Your task to perform on an android device: turn on notifications settings in the gmail app Image 0: 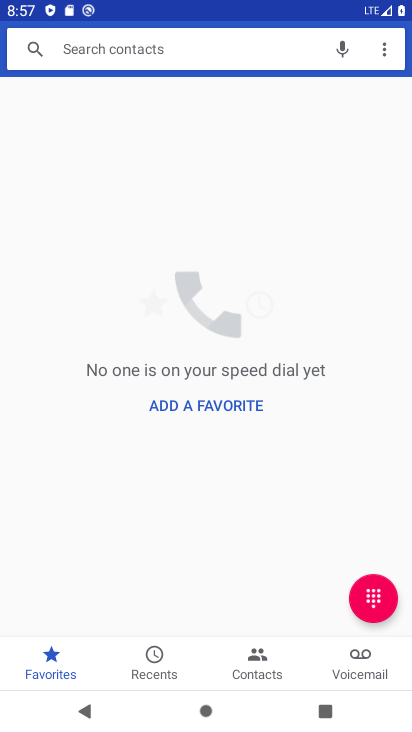
Step 0: press home button
Your task to perform on an android device: turn on notifications settings in the gmail app Image 1: 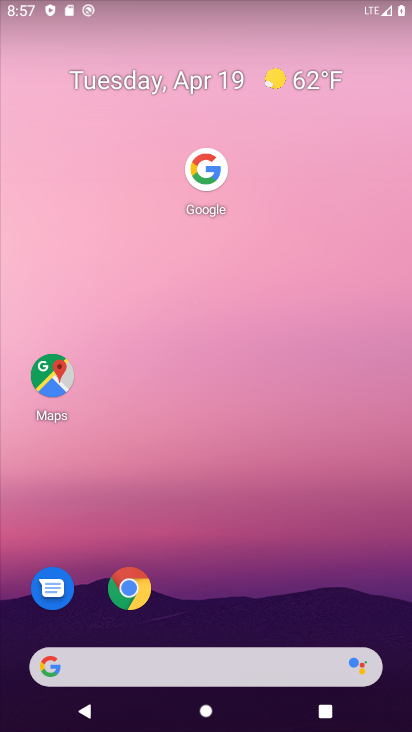
Step 1: drag from (205, 609) to (174, 2)
Your task to perform on an android device: turn on notifications settings in the gmail app Image 2: 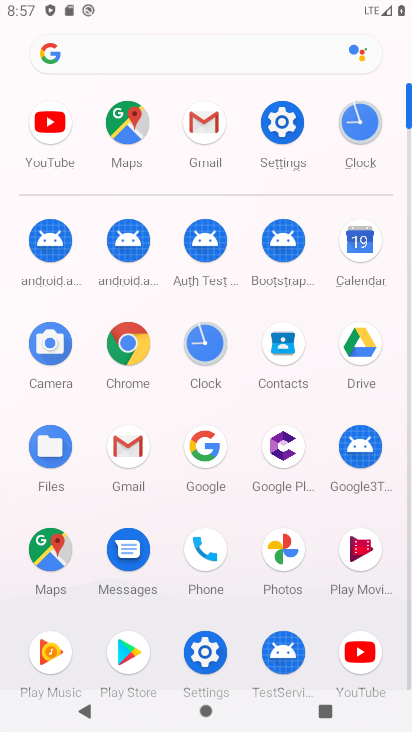
Step 2: click (207, 125)
Your task to perform on an android device: turn on notifications settings in the gmail app Image 3: 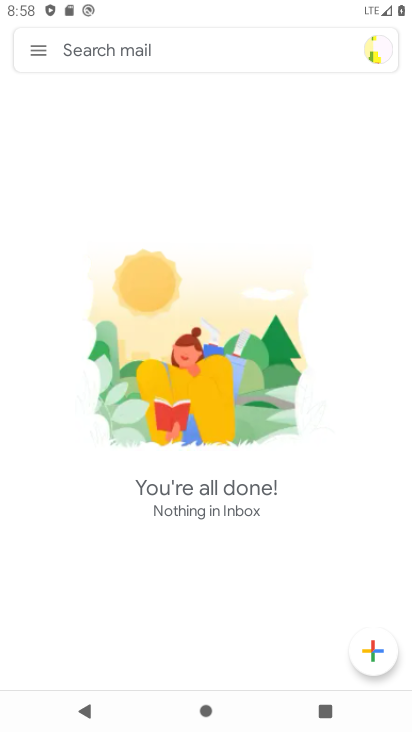
Step 3: click (38, 51)
Your task to perform on an android device: turn on notifications settings in the gmail app Image 4: 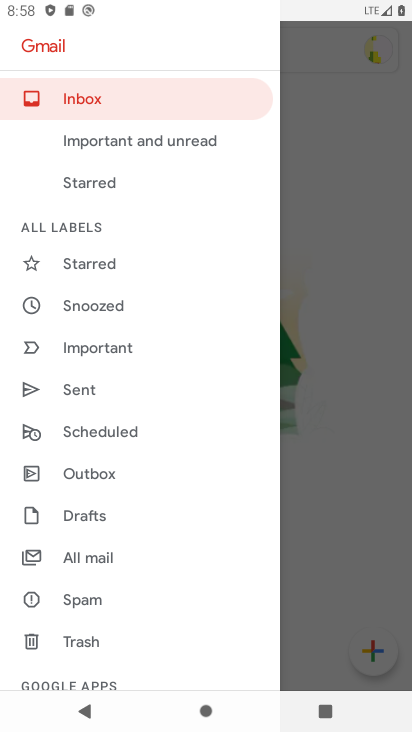
Step 4: drag from (144, 639) to (122, 181)
Your task to perform on an android device: turn on notifications settings in the gmail app Image 5: 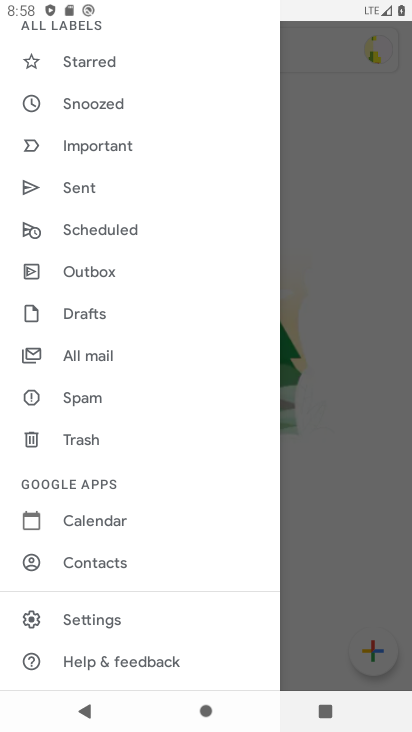
Step 5: click (94, 626)
Your task to perform on an android device: turn on notifications settings in the gmail app Image 6: 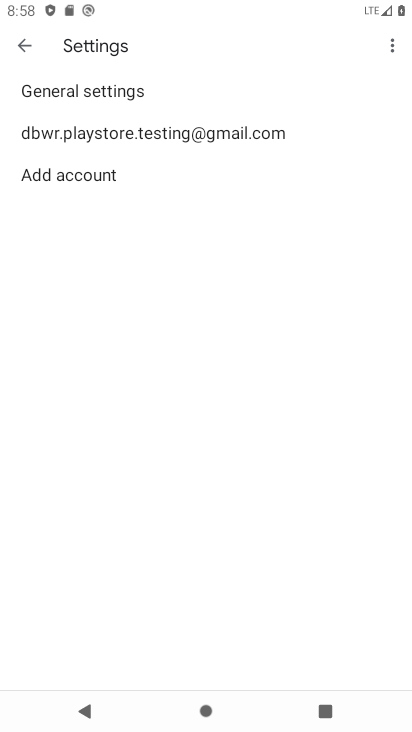
Step 6: click (76, 85)
Your task to perform on an android device: turn on notifications settings in the gmail app Image 7: 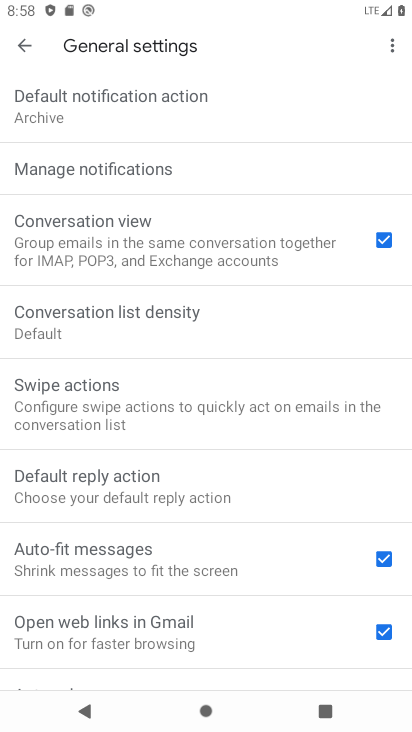
Step 7: click (118, 164)
Your task to perform on an android device: turn on notifications settings in the gmail app Image 8: 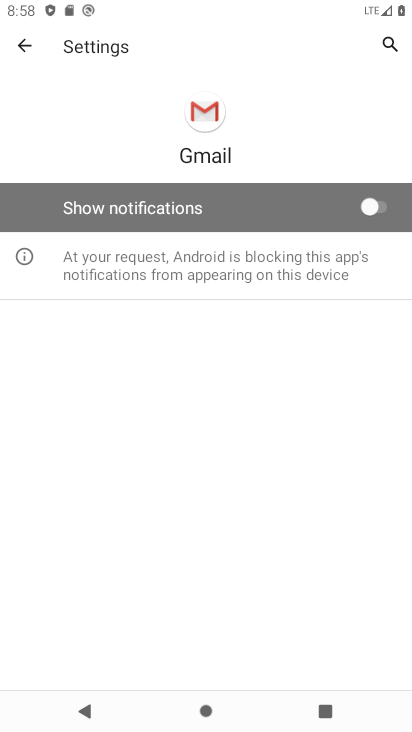
Step 8: click (373, 205)
Your task to perform on an android device: turn on notifications settings in the gmail app Image 9: 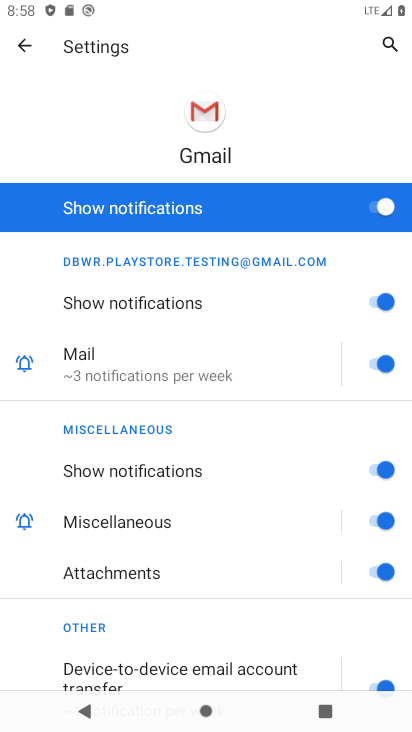
Step 9: task complete